Your task to perform on an android device: turn smart compose on in the gmail app Image 0: 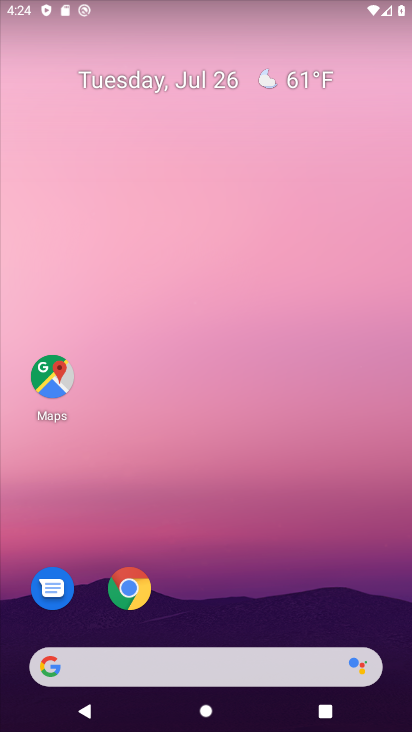
Step 0: drag from (300, 392) to (403, 614)
Your task to perform on an android device: turn smart compose on in the gmail app Image 1: 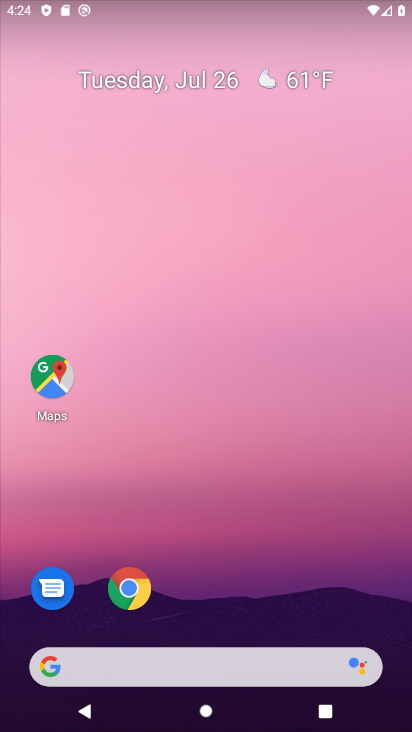
Step 1: drag from (259, 464) to (366, 4)
Your task to perform on an android device: turn smart compose on in the gmail app Image 2: 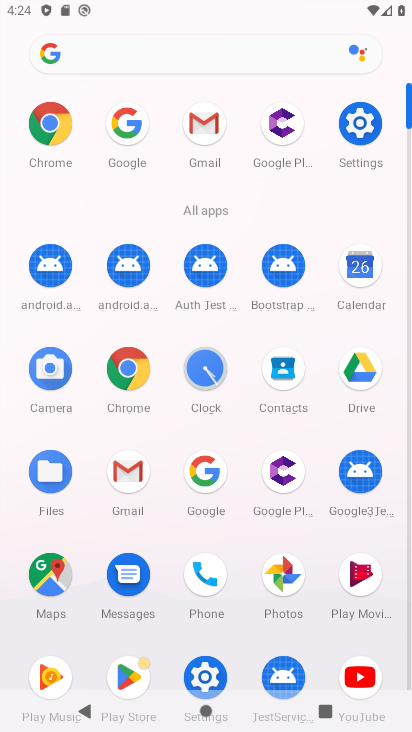
Step 2: click (201, 141)
Your task to perform on an android device: turn smart compose on in the gmail app Image 3: 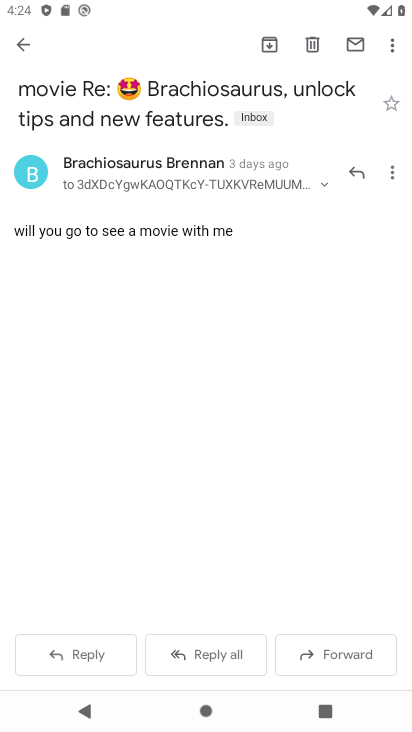
Step 3: click (25, 46)
Your task to perform on an android device: turn smart compose on in the gmail app Image 4: 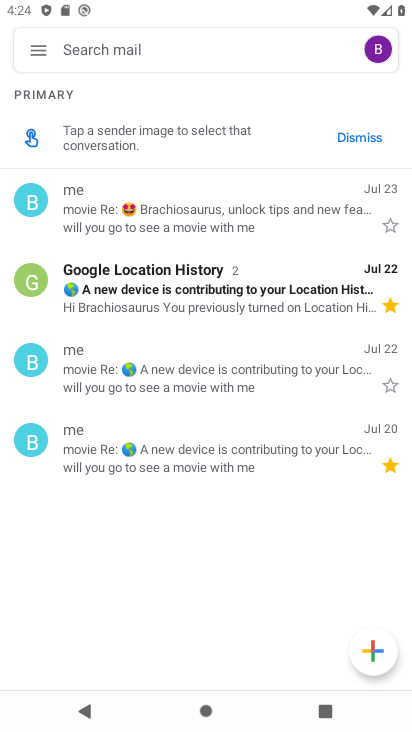
Step 4: click (40, 61)
Your task to perform on an android device: turn smart compose on in the gmail app Image 5: 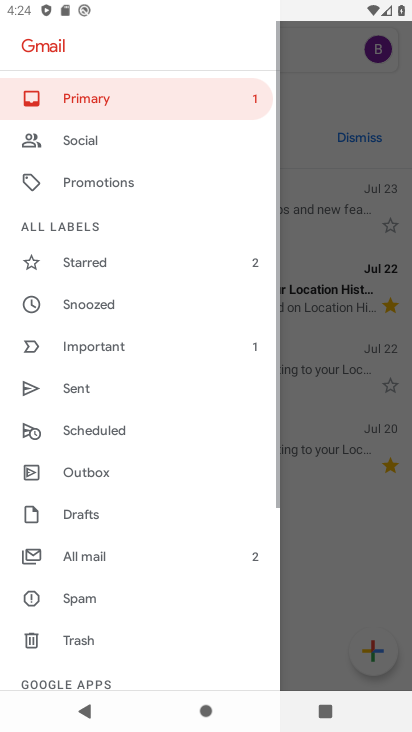
Step 5: drag from (72, 636) to (148, 51)
Your task to perform on an android device: turn smart compose on in the gmail app Image 6: 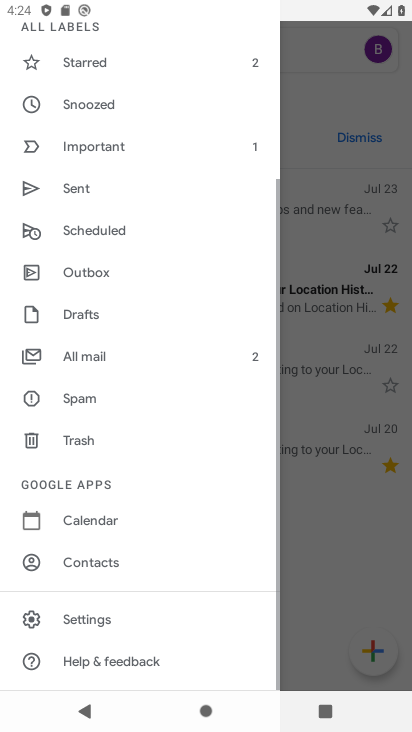
Step 6: click (75, 619)
Your task to perform on an android device: turn smart compose on in the gmail app Image 7: 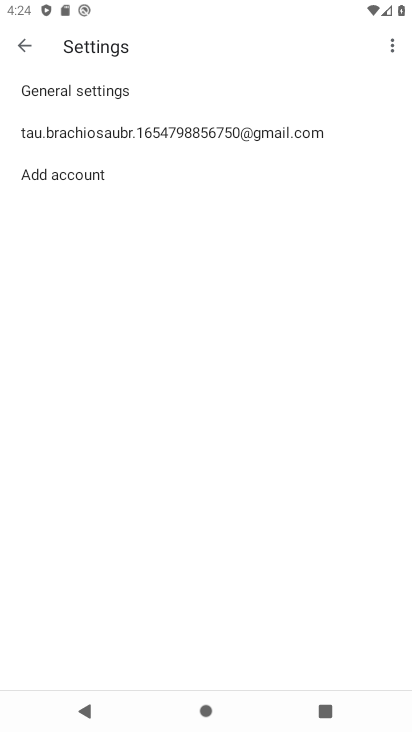
Step 7: click (152, 123)
Your task to perform on an android device: turn smart compose on in the gmail app Image 8: 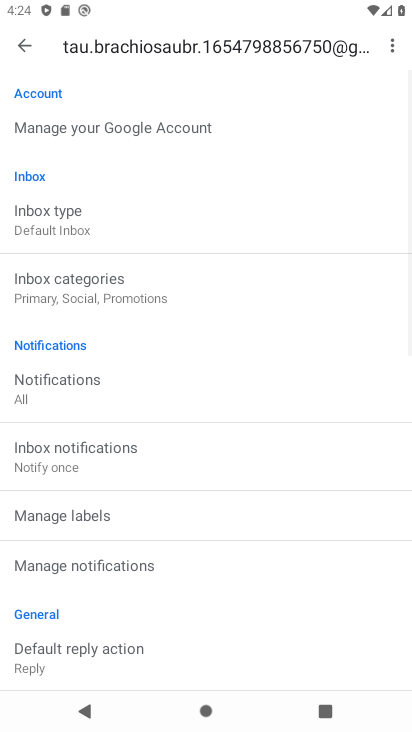
Step 8: task complete